Your task to perform on an android device: Open sound settings Image 0: 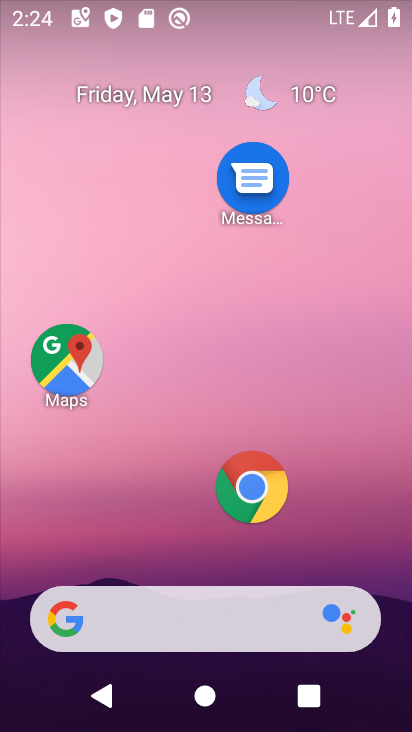
Step 0: drag from (209, 324) to (202, 172)
Your task to perform on an android device: Open sound settings Image 1: 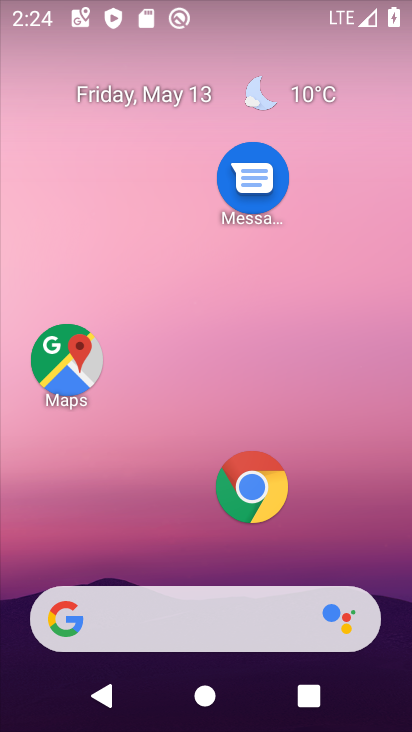
Step 1: drag from (181, 545) to (226, 166)
Your task to perform on an android device: Open sound settings Image 2: 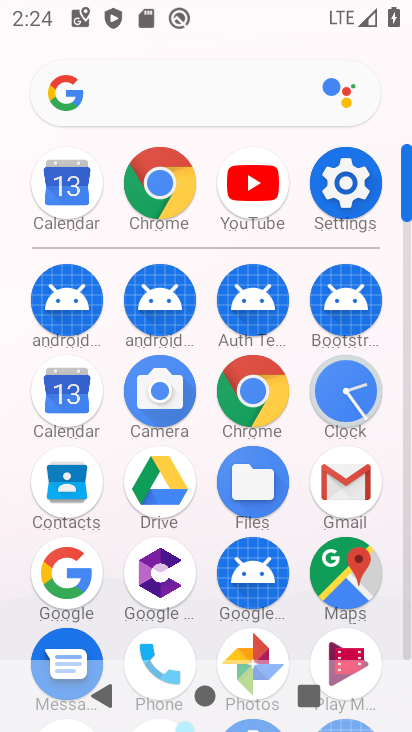
Step 2: click (341, 177)
Your task to perform on an android device: Open sound settings Image 3: 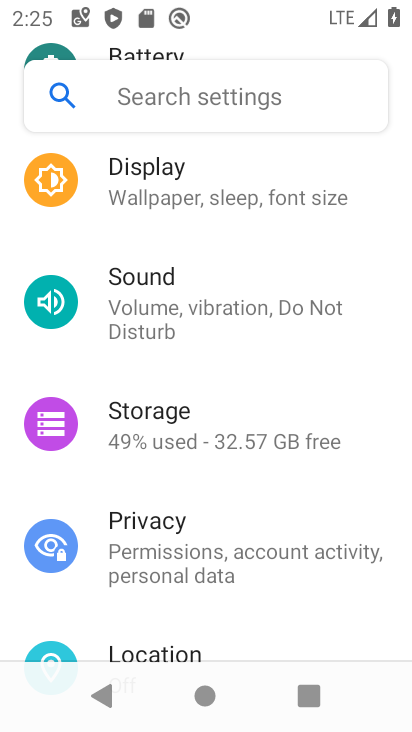
Step 3: click (157, 300)
Your task to perform on an android device: Open sound settings Image 4: 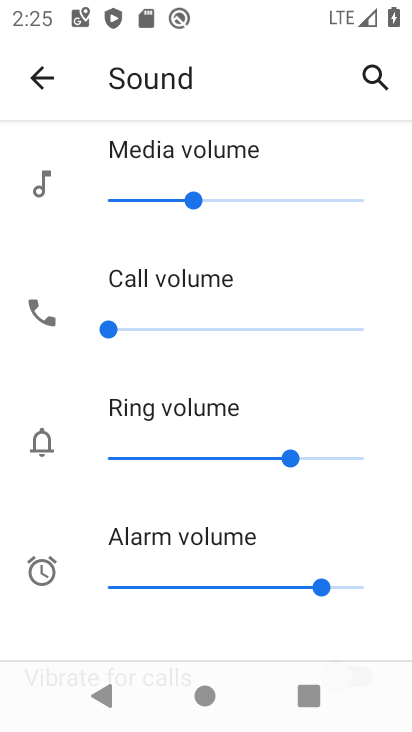
Step 4: task complete